Your task to perform on an android device: Open battery settings Image 0: 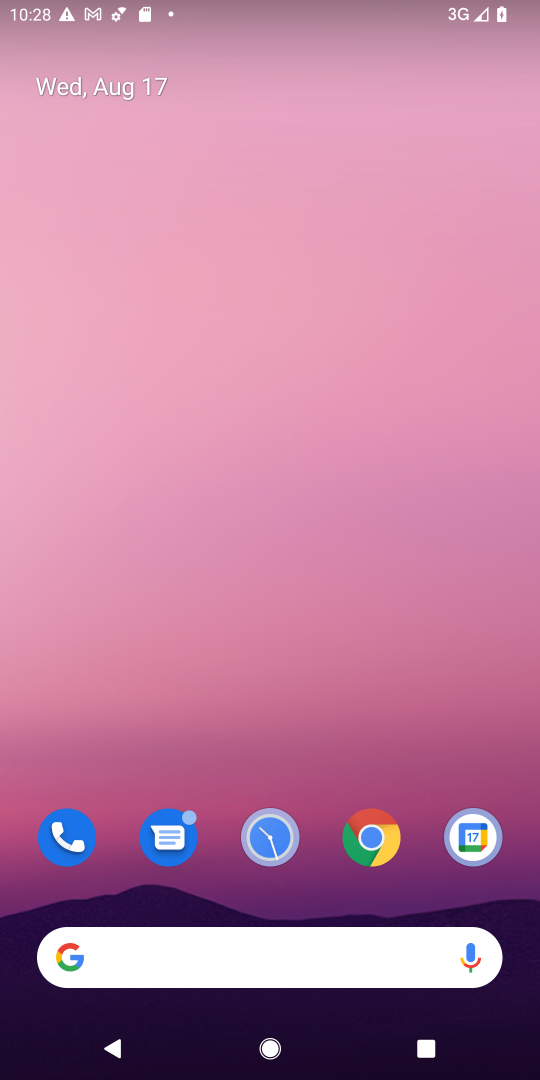
Step 0: drag from (242, 949) to (349, 230)
Your task to perform on an android device: Open battery settings Image 1: 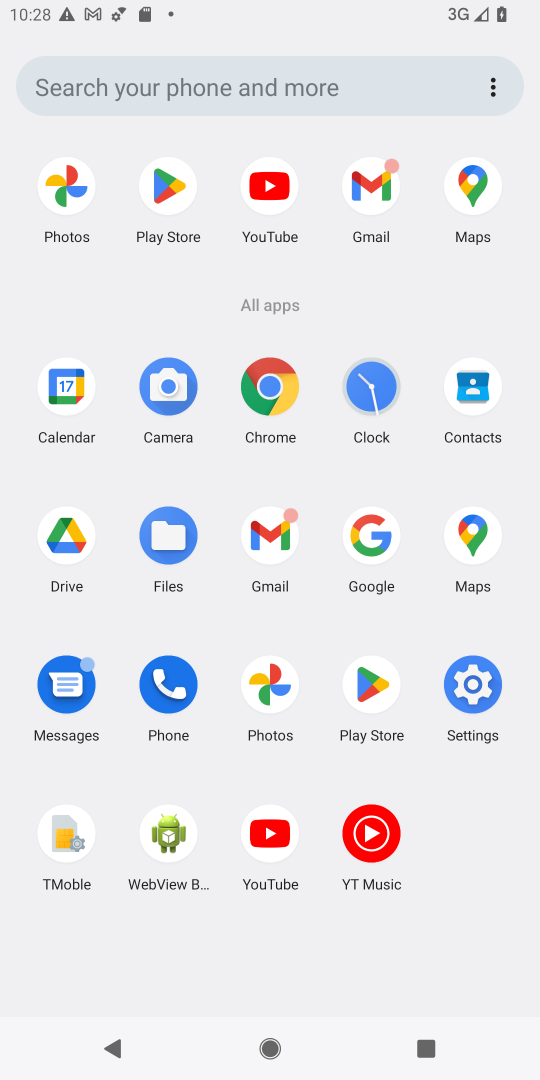
Step 1: click (473, 678)
Your task to perform on an android device: Open battery settings Image 2: 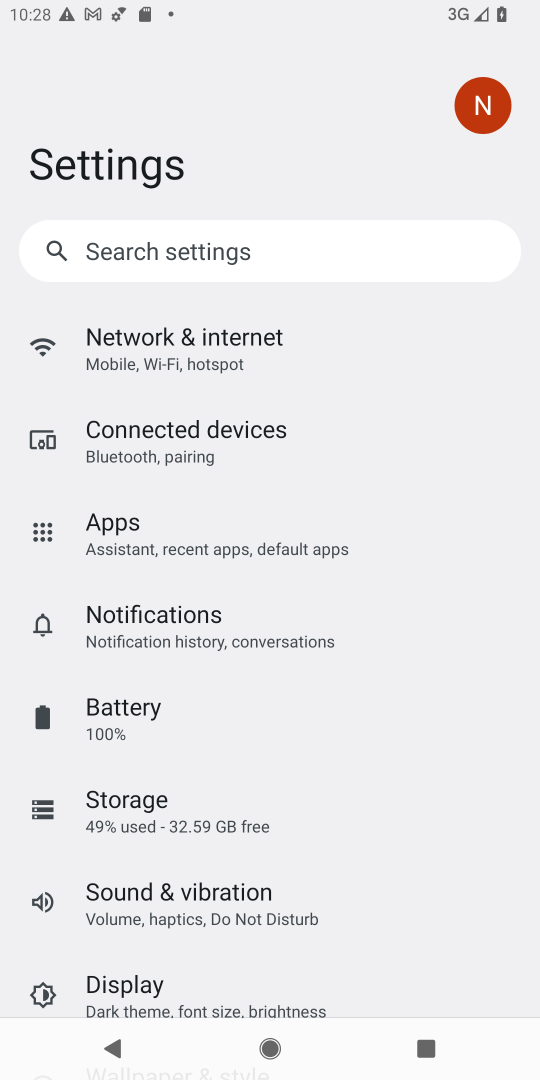
Step 2: click (149, 710)
Your task to perform on an android device: Open battery settings Image 3: 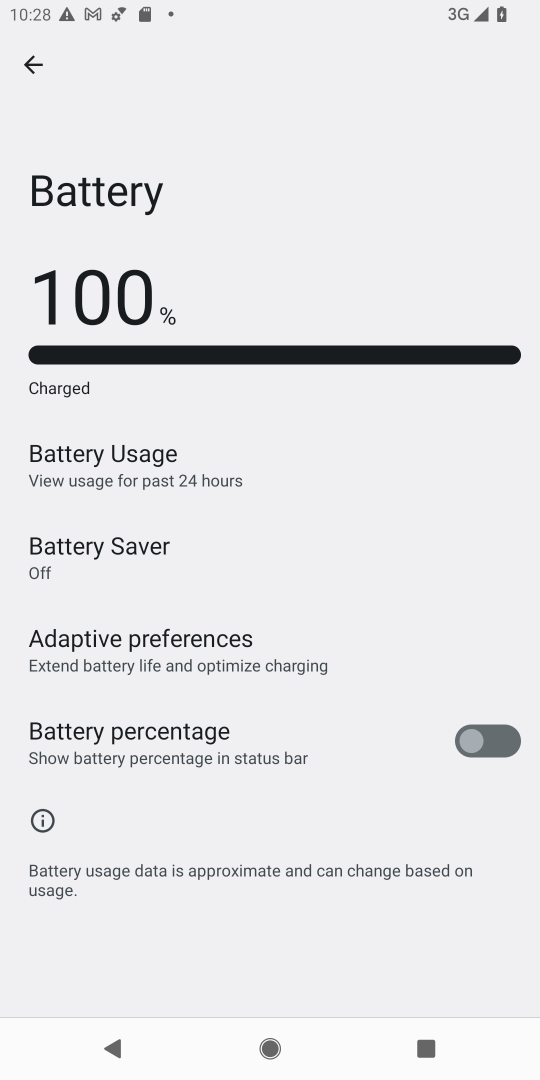
Step 3: task complete